Your task to perform on an android device: Add "razer deathadder" to the cart on ebay.com, then select checkout. Image 0: 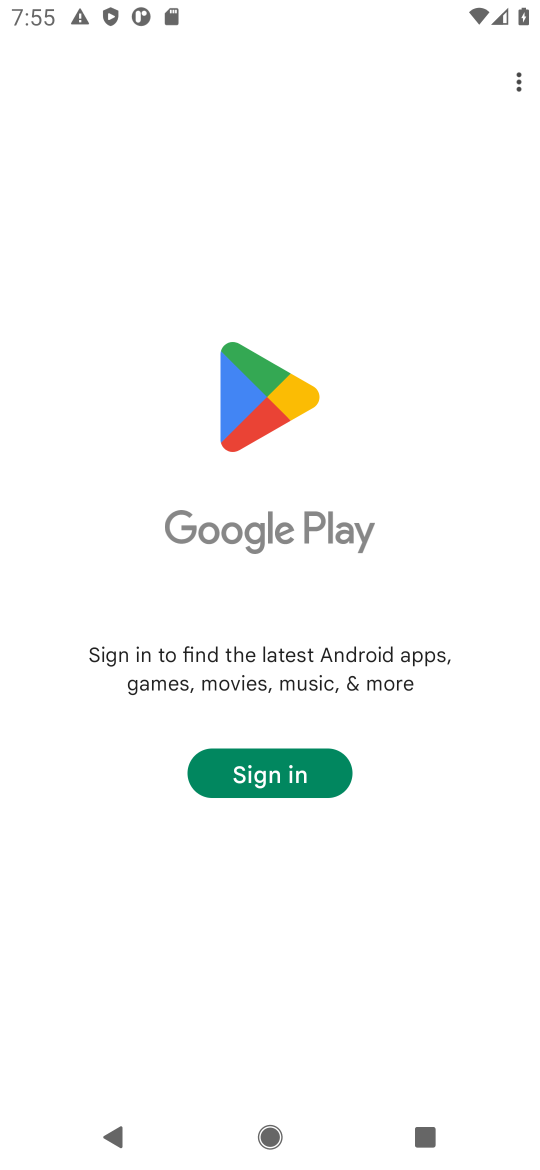
Step 0: press home button
Your task to perform on an android device: Add "razer deathadder" to the cart on ebay.com, then select checkout. Image 1: 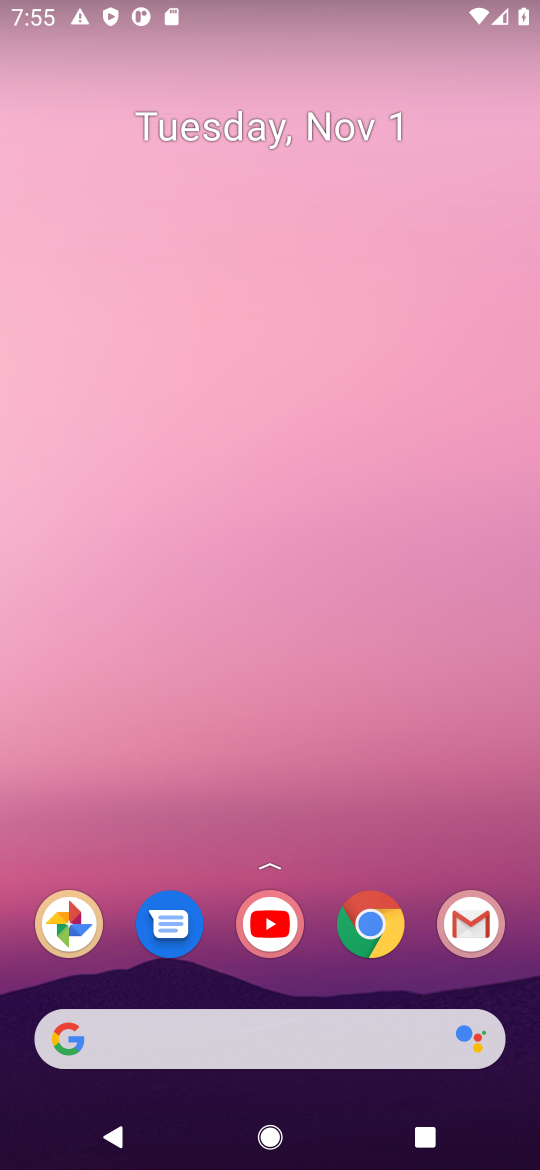
Step 1: click (105, 1031)
Your task to perform on an android device: Add "razer deathadder" to the cart on ebay.com, then select checkout. Image 2: 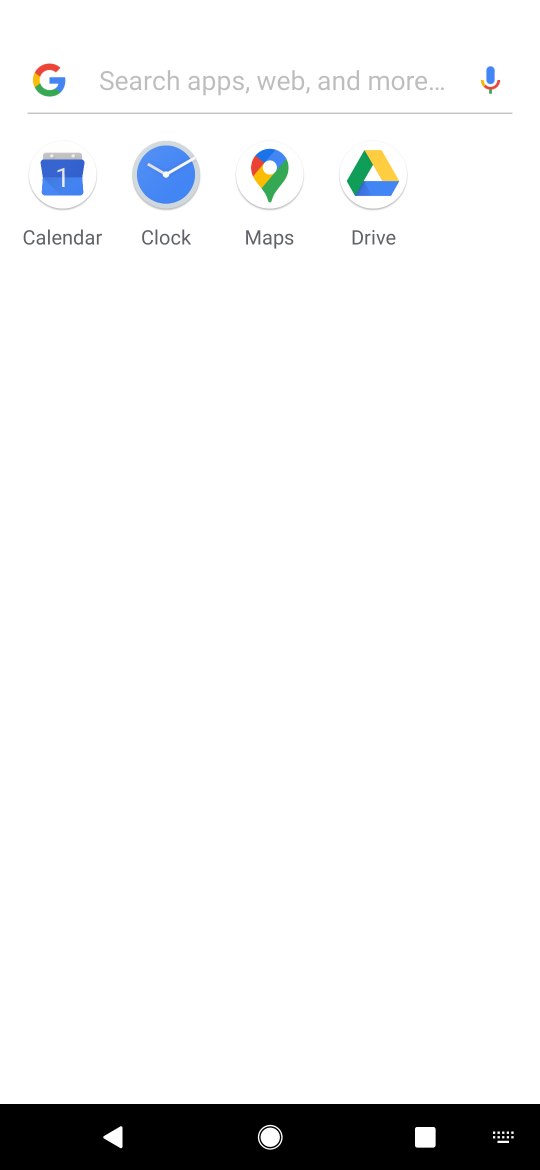
Step 2: type "ebay.com"
Your task to perform on an android device: Add "razer deathadder" to the cart on ebay.com, then select checkout. Image 3: 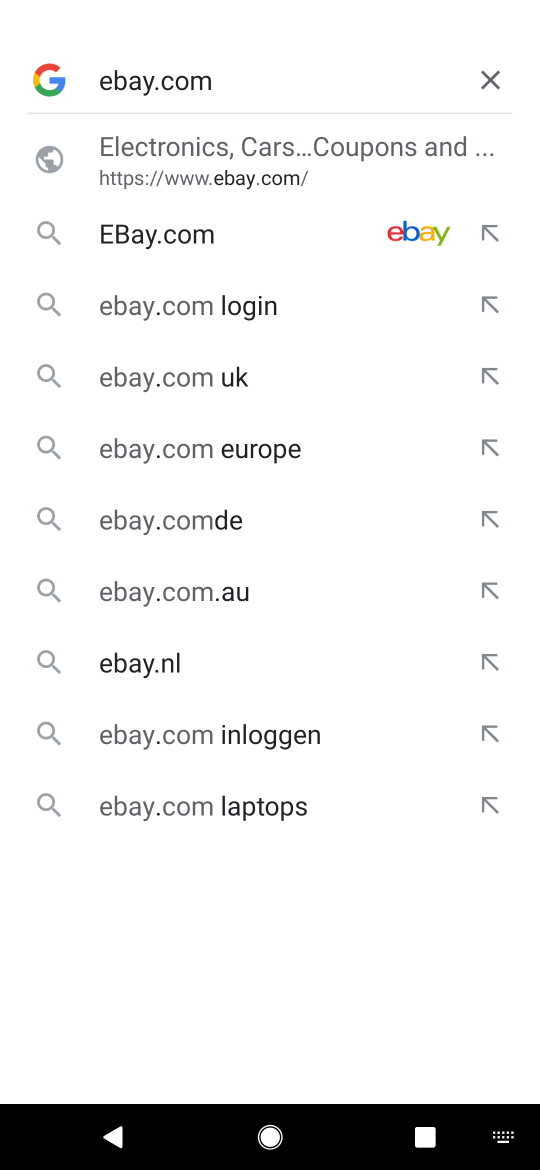
Step 3: press enter
Your task to perform on an android device: Add "razer deathadder" to the cart on ebay.com, then select checkout. Image 4: 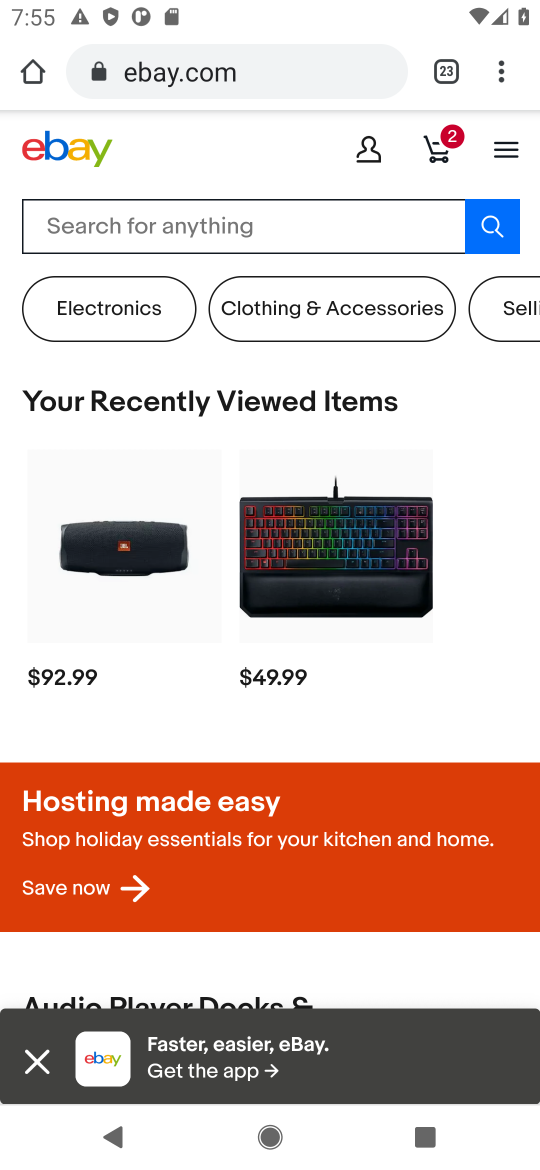
Step 4: click (64, 220)
Your task to perform on an android device: Add "razer deathadder" to the cart on ebay.com, then select checkout. Image 5: 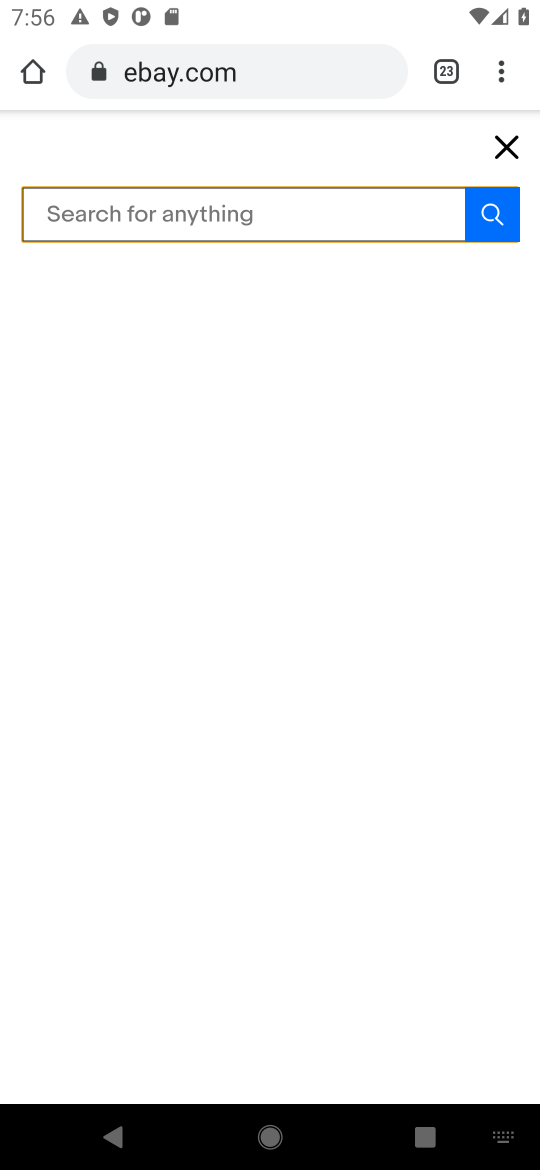
Step 5: type "razer deathadder"
Your task to perform on an android device: Add "razer deathadder" to the cart on ebay.com, then select checkout. Image 6: 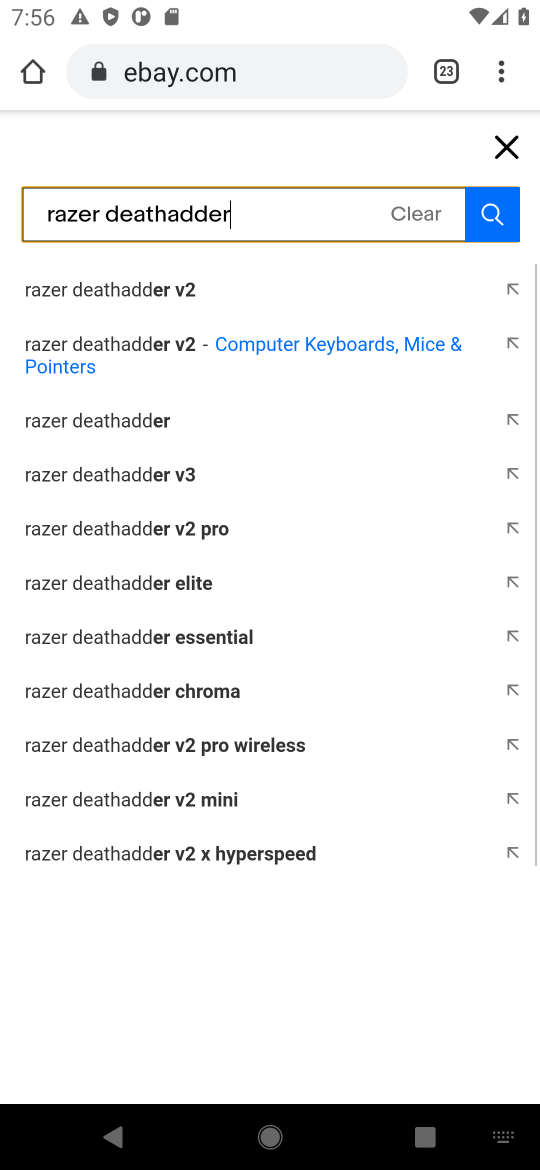
Step 6: press enter
Your task to perform on an android device: Add "razer deathadder" to the cart on ebay.com, then select checkout. Image 7: 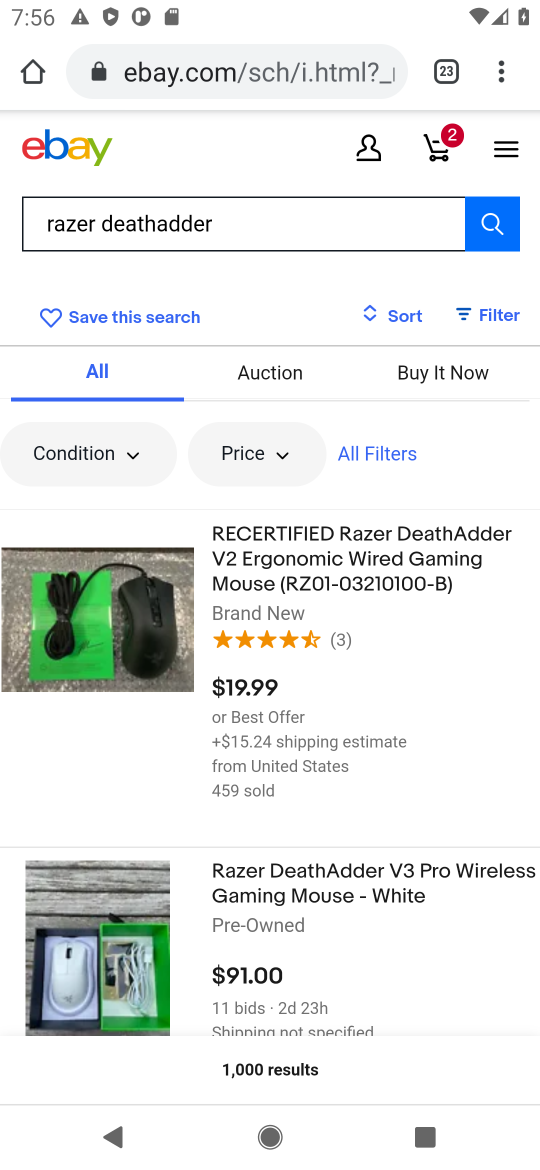
Step 7: drag from (390, 951) to (387, 707)
Your task to perform on an android device: Add "razer deathadder" to the cart on ebay.com, then select checkout. Image 8: 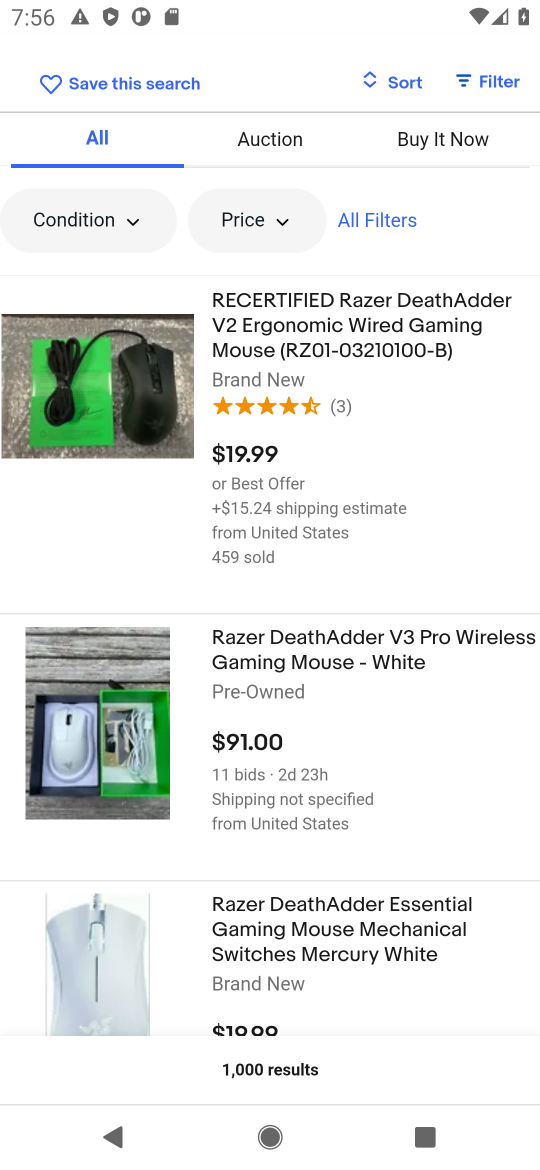
Step 8: click (294, 663)
Your task to perform on an android device: Add "razer deathadder" to the cart on ebay.com, then select checkout. Image 9: 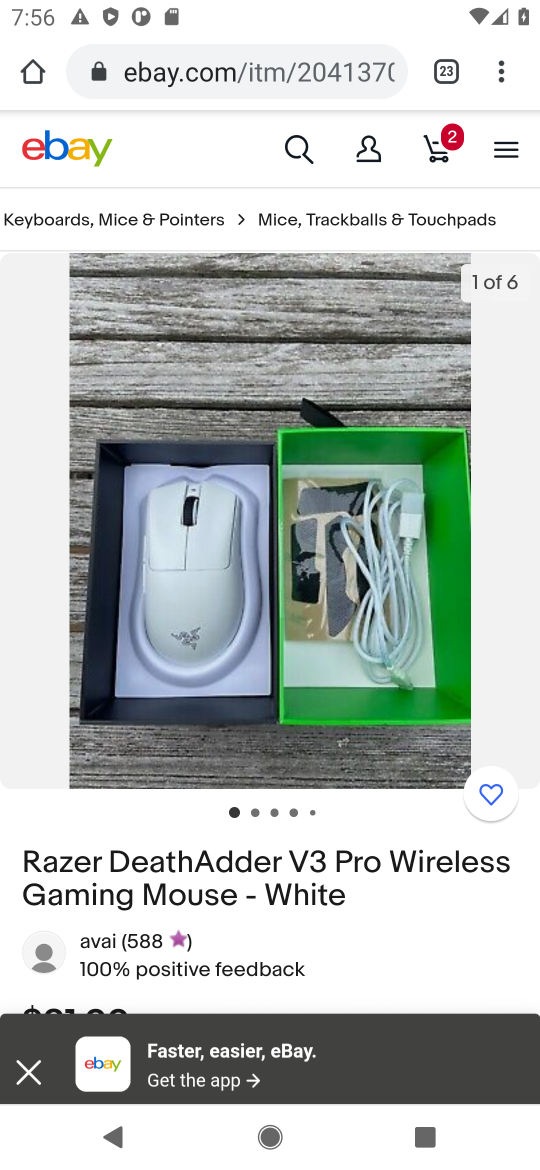
Step 9: drag from (279, 885) to (369, 514)
Your task to perform on an android device: Add "razer deathadder" to the cart on ebay.com, then select checkout. Image 10: 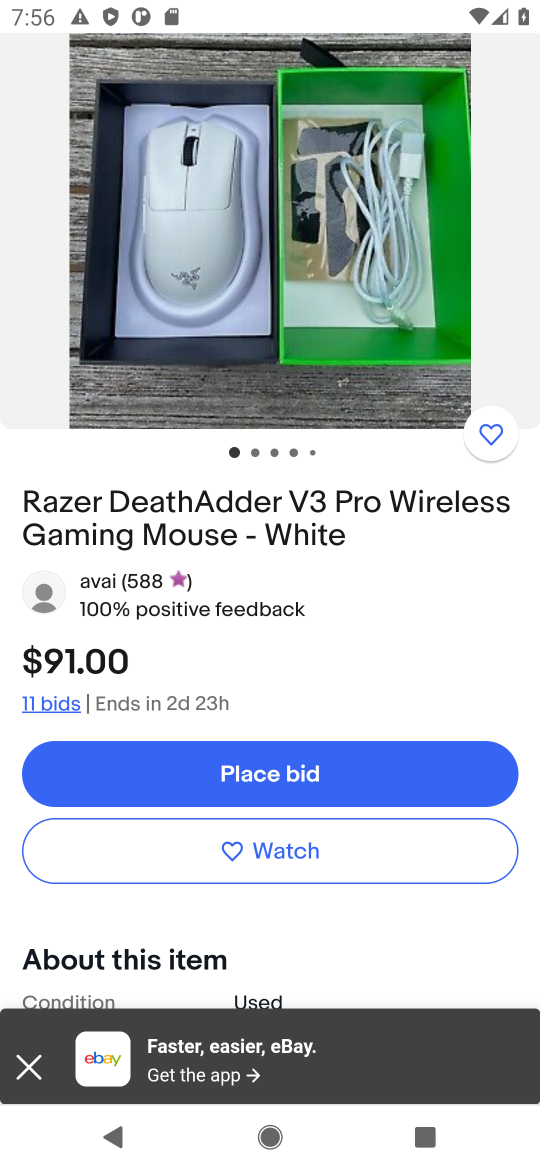
Step 10: click (367, 781)
Your task to perform on an android device: Add "razer deathadder" to the cart on ebay.com, then select checkout. Image 11: 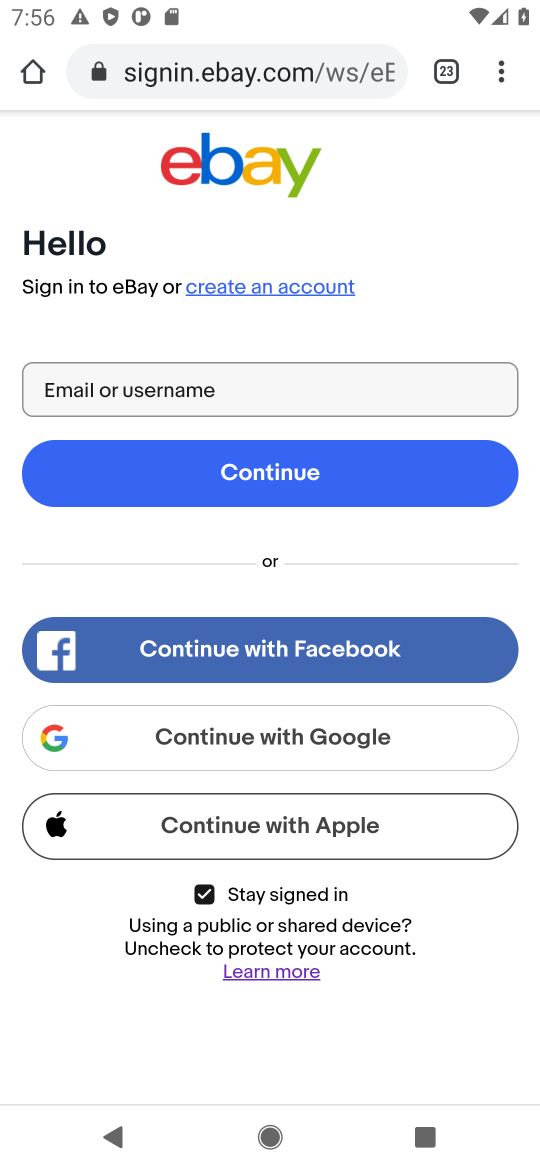
Step 11: task complete